Your task to perform on an android device: Show me the alarms in the clock app Image 0: 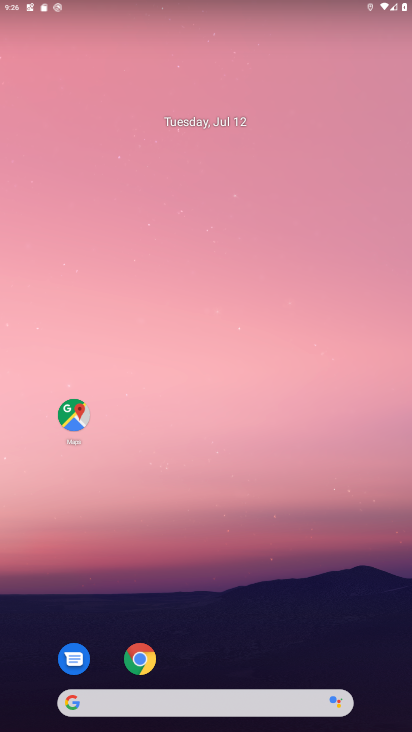
Step 0: drag from (244, 654) to (333, 169)
Your task to perform on an android device: Show me the alarms in the clock app Image 1: 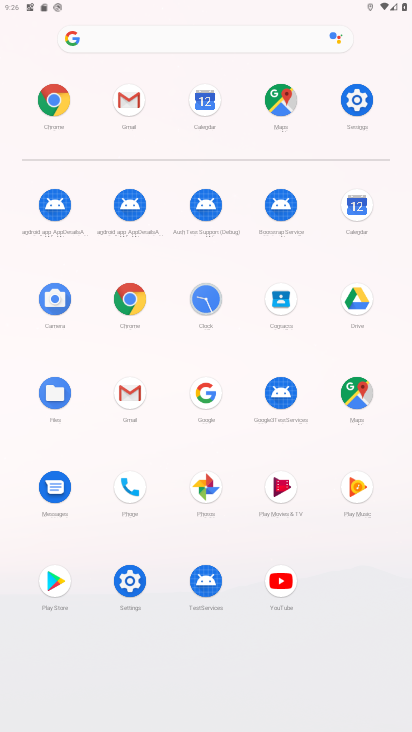
Step 1: click (209, 292)
Your task to perform on an android device: Show me the alarms in the clock app Image 2: 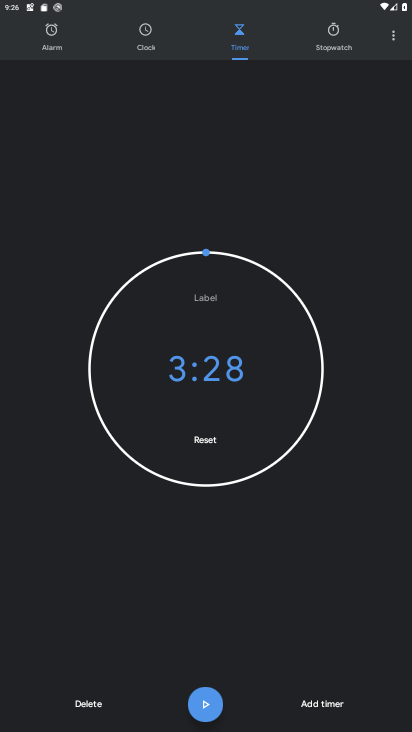
Step 2: click (54, 37)
Your task to perform on an android device: Show me the alarms in the clock app Image 3: 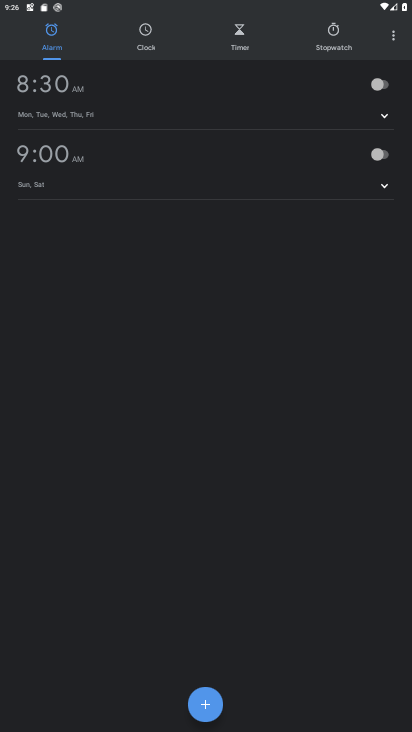
Step 3: task complete